Your task to perform on an android device: turn on wifi Image 0: 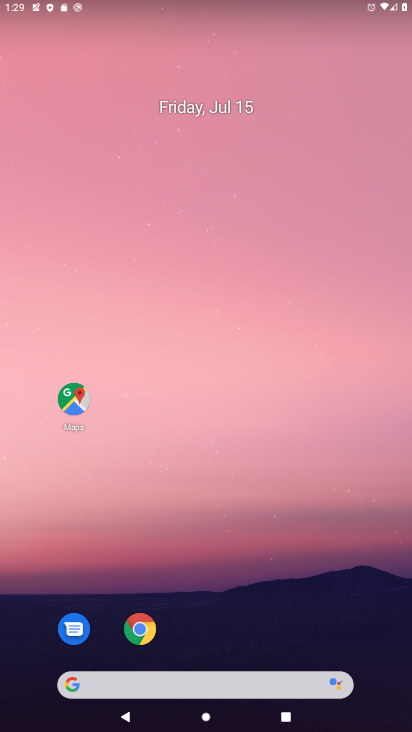
Step 0: drag from (266, 598) to (259, 117)
Your task to perform on an android device: turn on wifi Image 1: 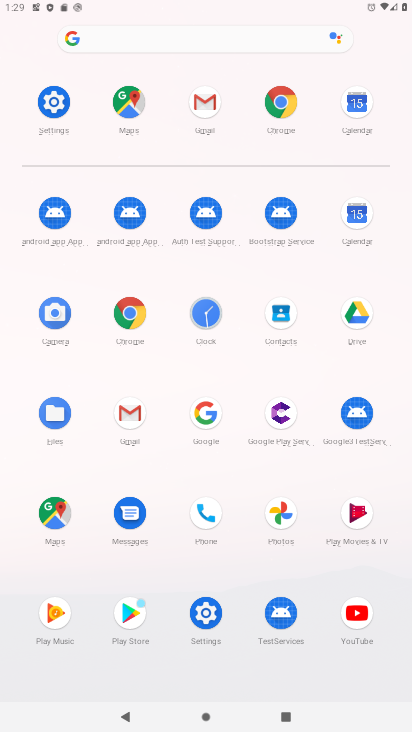
Step 1: click (53, 101)
Your task to perform on an android device: turn on wifi Image 2: 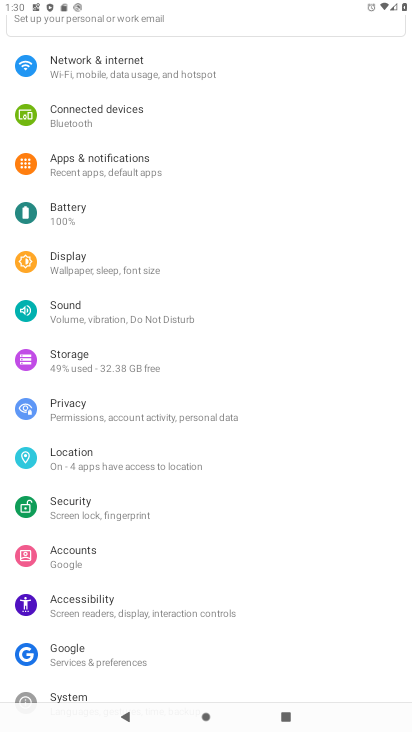
Step 2: click (107, 74)
Your task to perform on an android device: turn on wifi Image 3: 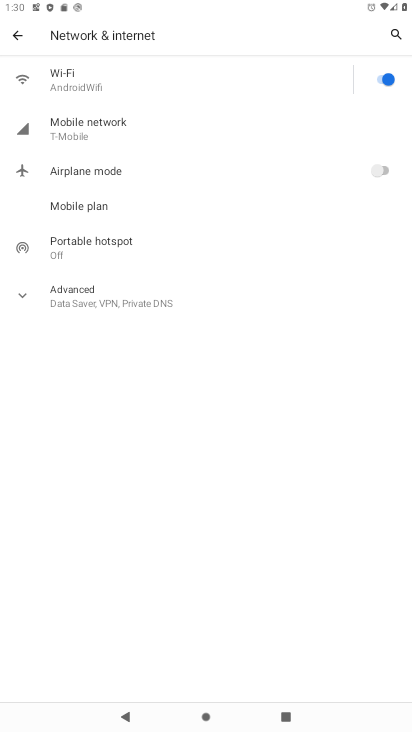
Step 3: task complete